Your task to perform on an android device: Do I have any events tomorrow? Image 0: 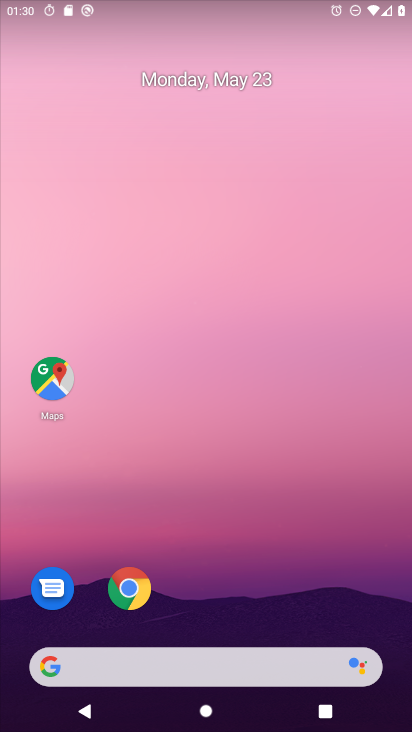
Step 0: drag from (281, 679) to (237, 64)
Your task to perform on an android device: Do I have any events tomorrow? Image 1: 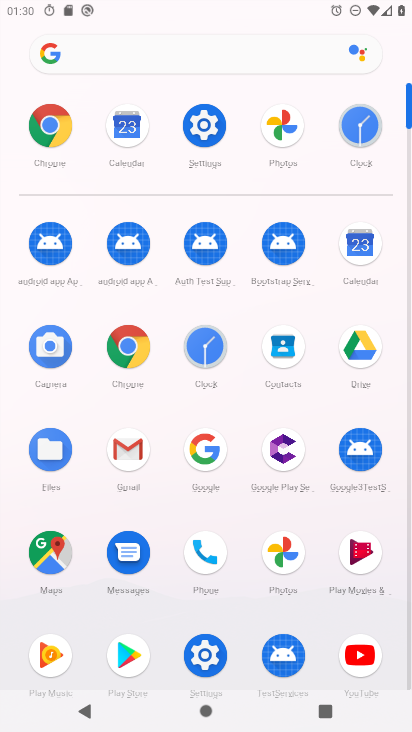
Step 1: click (351, 248)
Your task to perform on an android device: Do I have any events tomorrow? Image 2: 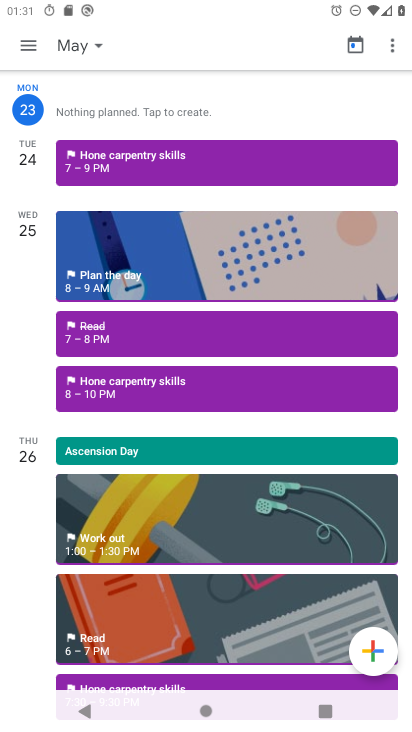
Step 2: click (29, 165)
Your task to perform on an android device: Do I have any events tomorrow? Image 3: 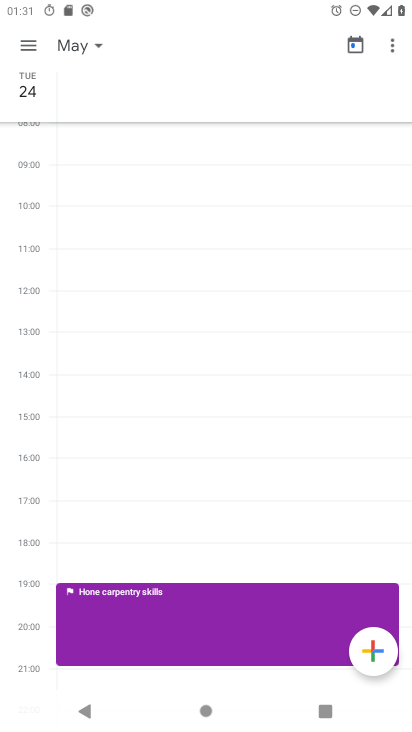
Step 3: task complete